Your task to perform on an android device: Go to privacy settings Image 0: 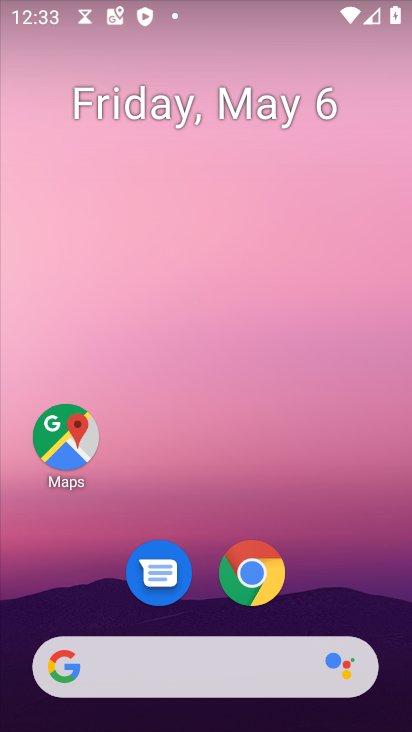
Step 0: drag from (303, 569) to (309, 316)
Your task to perform on an android device: Go to privacy settings Image 1: 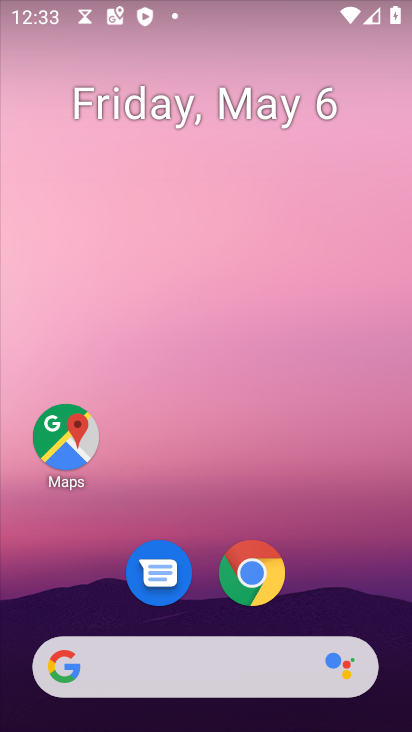
Step 1: drag from (337, 603) to (370, 294)
Your task to perform on an android device: Go to privacy settings Image 2: 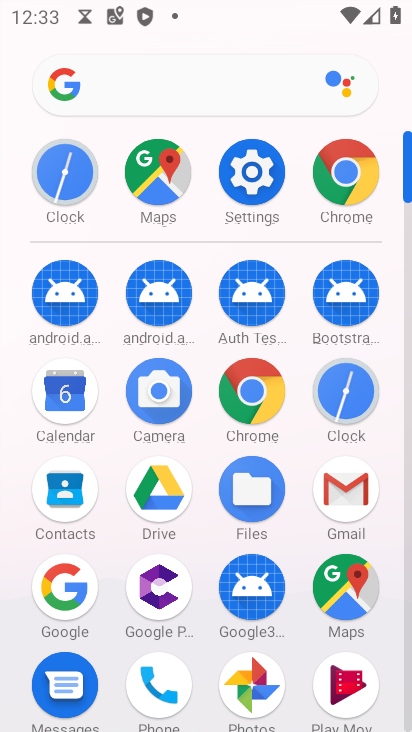
Step 2: click (342, 170)
Your task to perform on an android device: Go to privacy settings Image 3: 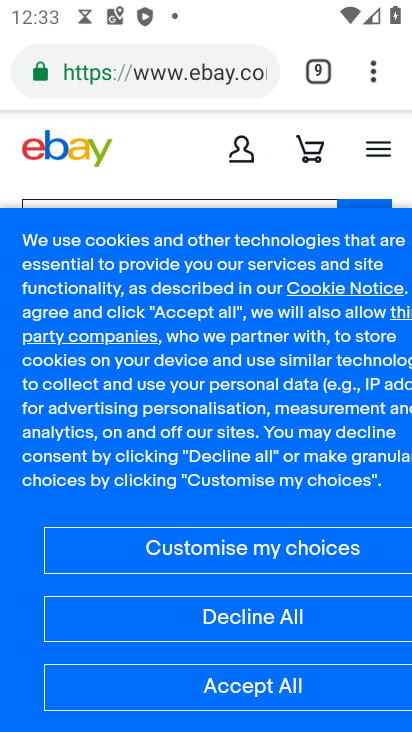
Step 3: click (350, 72)
Your task to perform on an android device: Go to privacy settings Image 4: 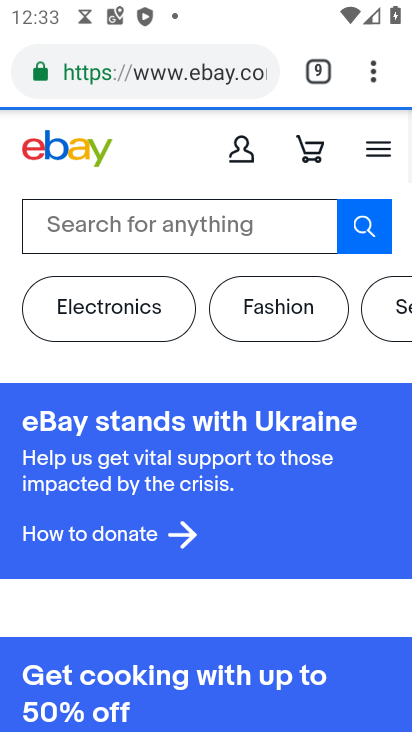
Step 4: click (368, 56)
Your task to perform on an android device: Go to privacy settings Image 5: 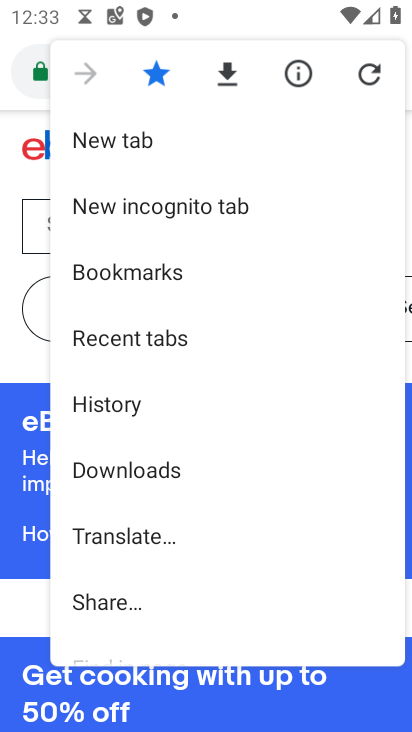
Step 5: drag from (172, 599) to (250, 169)
Your task to perform on an android device: Go to privacy settings Image 6: 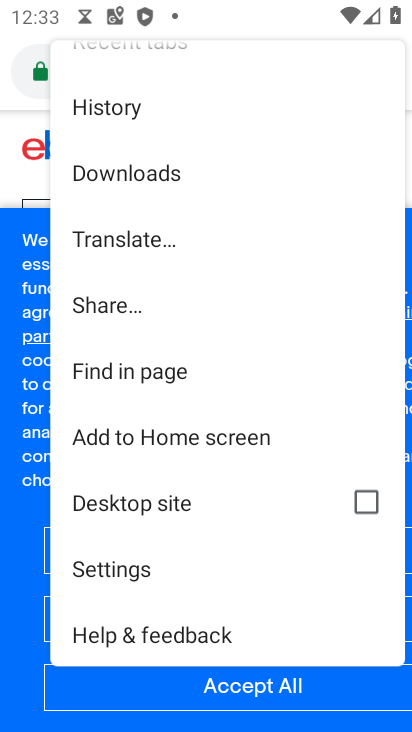
Step 6: click (111, 573)
Your task to perform on an android device: Go to privacy settings Image 7: 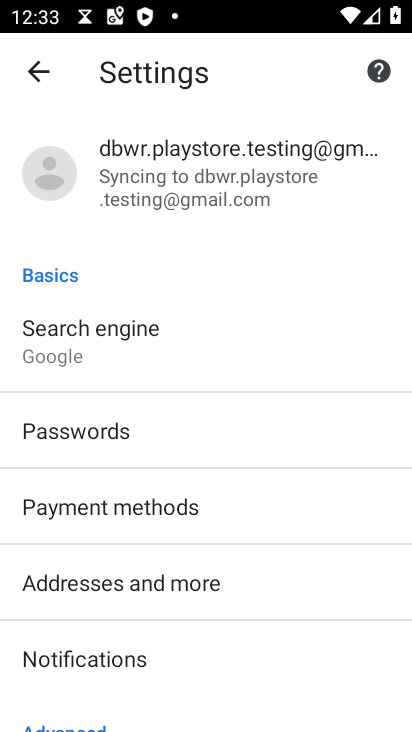
Step 7: drag from (215, 634) to (237, 310)
Your task to perform on an android device: Go to privacy settings Image 8: 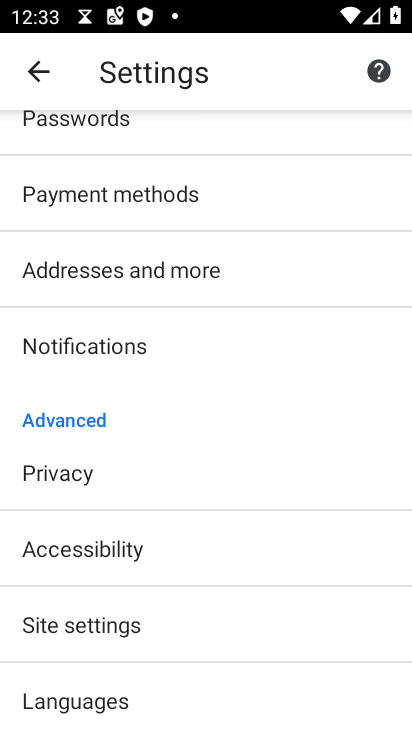
Step 8: click (101, 485)
Your task to perform on an android device: Go to privacy settings Image 9: 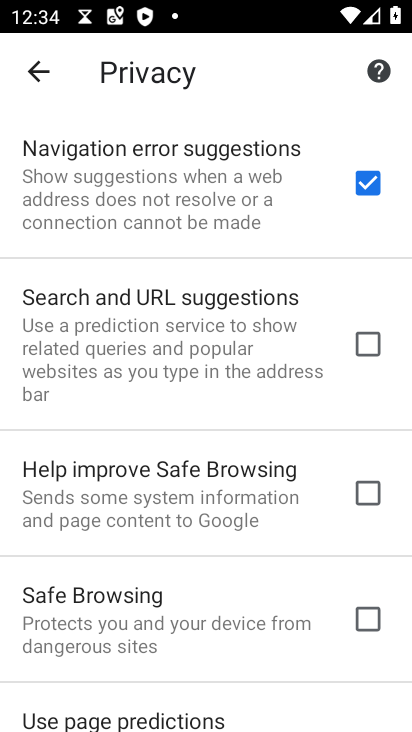
Step 9: task complete